Your task to perform on an android device: check battery use Image 0: 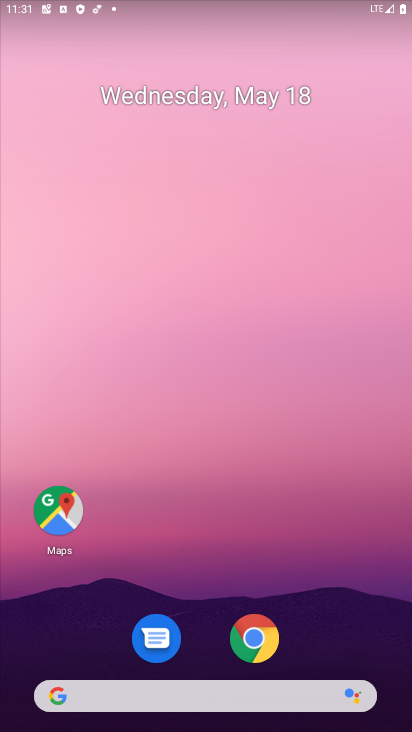
Step 0: drag from (371, 598) to (277, 158)
Your task to perform on an android device: check battery use Image 1: 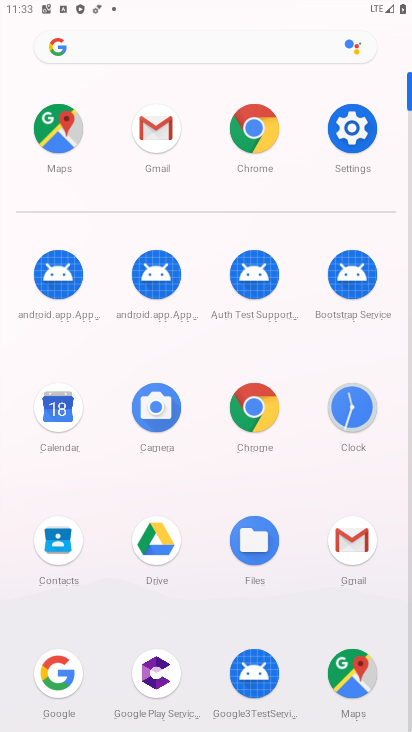
Step 1: click (346, 139)
Your task to perform on an android device: check battery use Image 2: 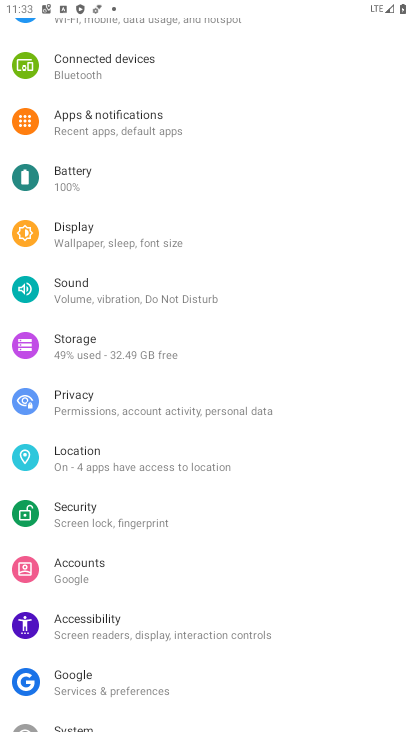
Step 2: click (113, 194)
Your task to perform on an android device: check battery use Image 3: 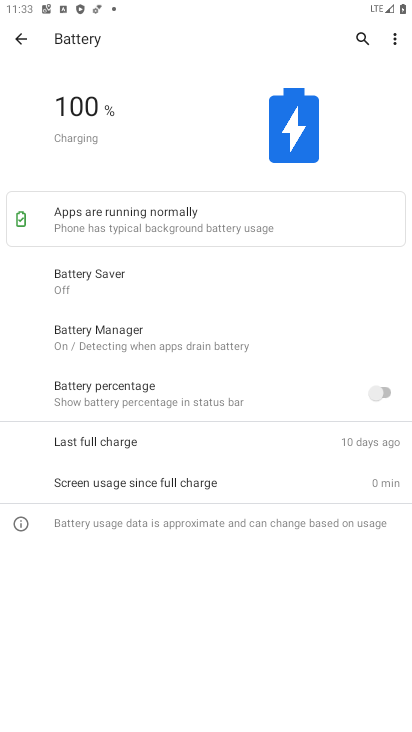
Step 3: task complete